Your task to perform on an android device: change the clock display to digital Image 0: 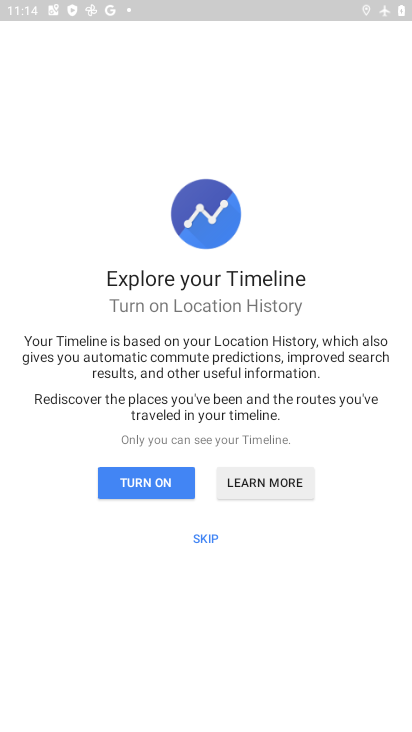
Step 0: press home button
Your task to perform on an android device: change the clock display to digital Image 1: 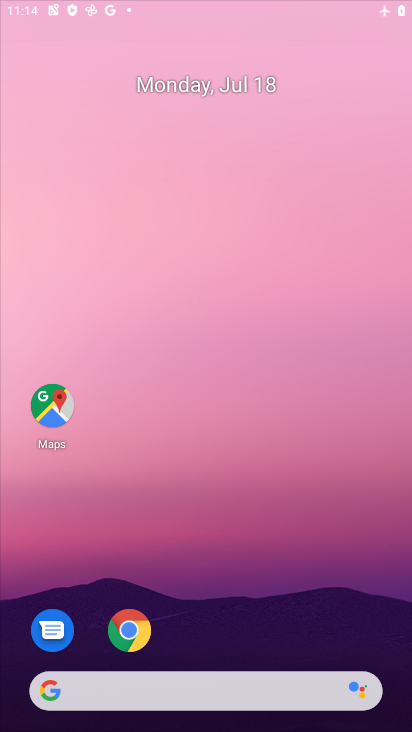
Step 1: drag from (391, 674) to (269, 17)
Your task to perform on an android device: change the clock display to digital Image 2: 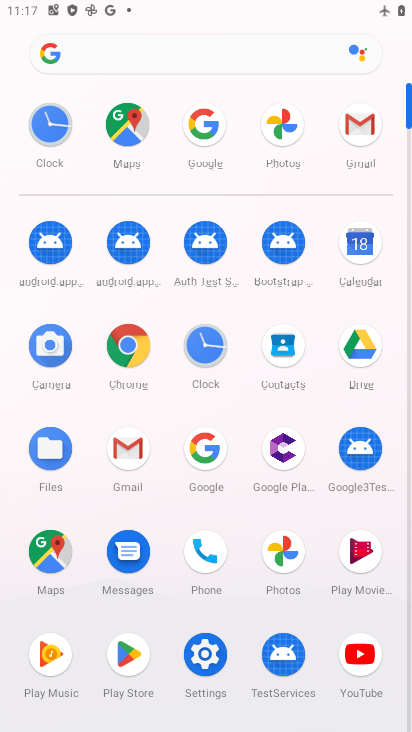
Step 2: click (207, 334)
Your task to perform on an android device: change the clock display to digital Image 3: 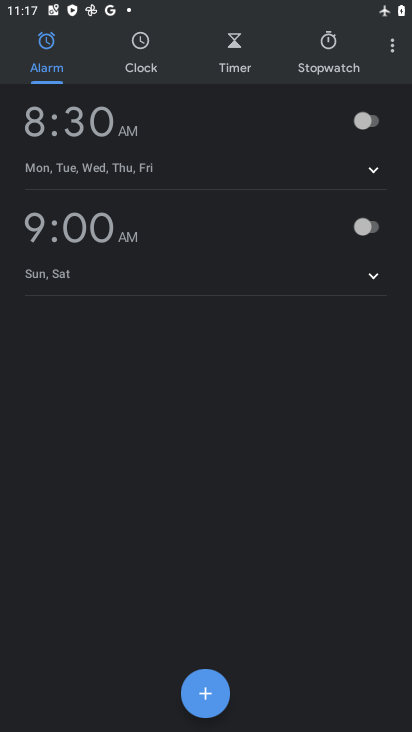
Step 3: click (397, 39)
Your task to perform on an android device: change the clock display to digital Image 4: 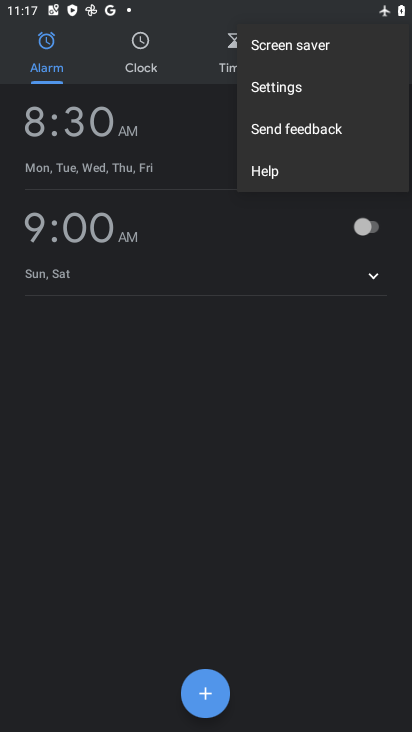
Step 4: click (310, 86)
Your task to perform on an android device: change the clock display to digital Image 5: 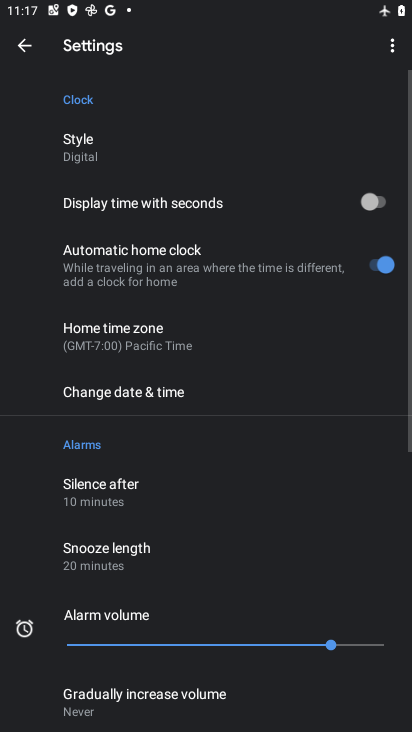
Step 5: click (154, 152)
Your task to perform on an android device: change the clock display to digital Image 6: 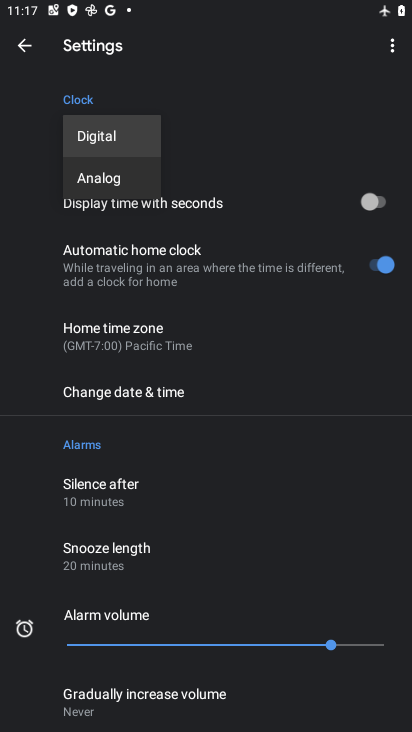
Step 6: click (114, 137)
Your task to perform on an android device: change the clock display to digital Image 7: 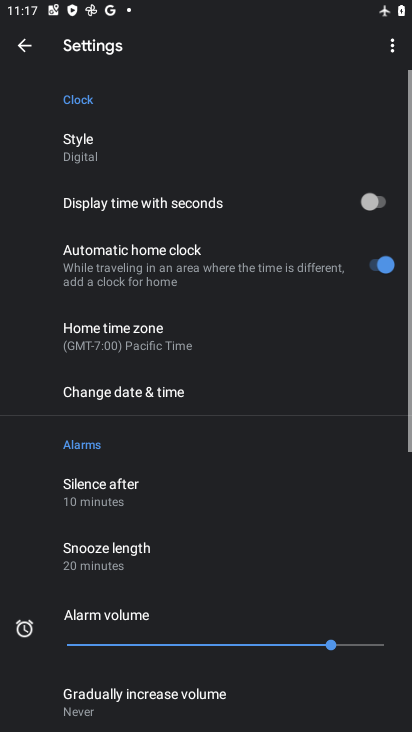
Step 7: task complete